Your task to perform on an android device: visit the assistant section in the google photos Image 0: 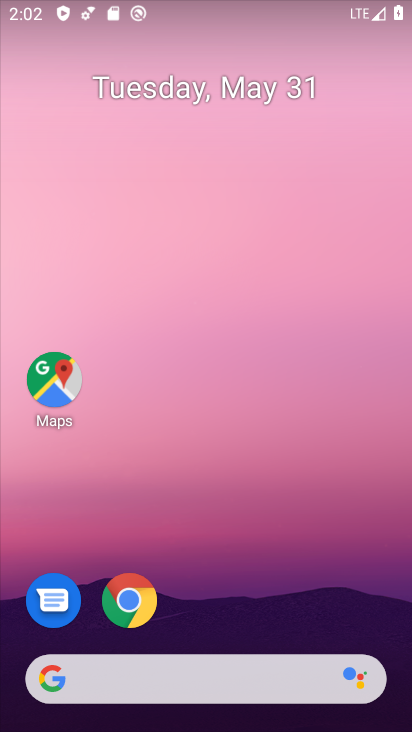
Step 0: drag from (234, 621) to (254, 2)
Your task to perform on an android device: visit the assistant section in the google photos Image 1: 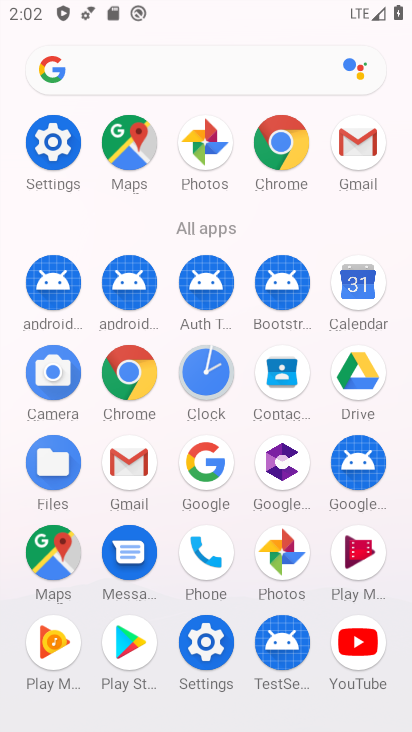
Step 1: click (279, 543)
Your task to perform on an android device: visit the assistant section in the google photos Image 2: 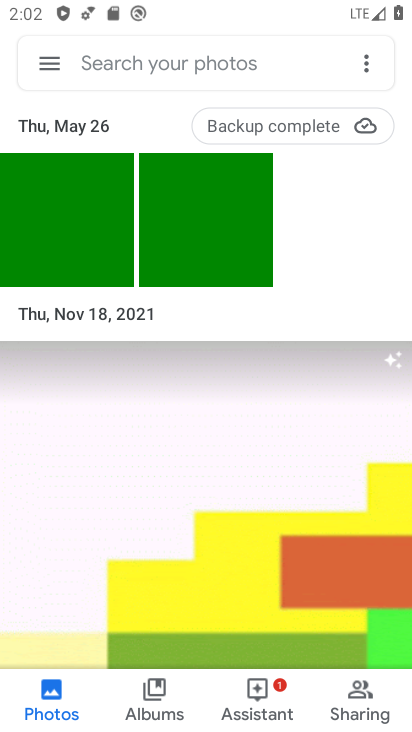
Step 2: click (257, 686)
Your task to perform on an android device: visit the assistant section in the google photos Image 3: 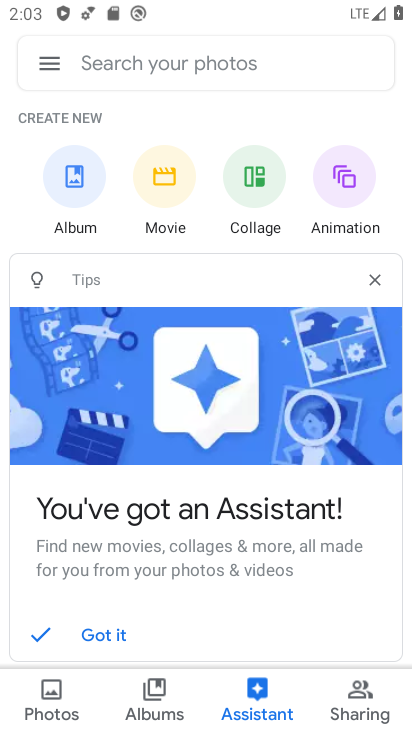
Step 3: task complete